Your task to perform on an android device: Go to Google maps Image 0: 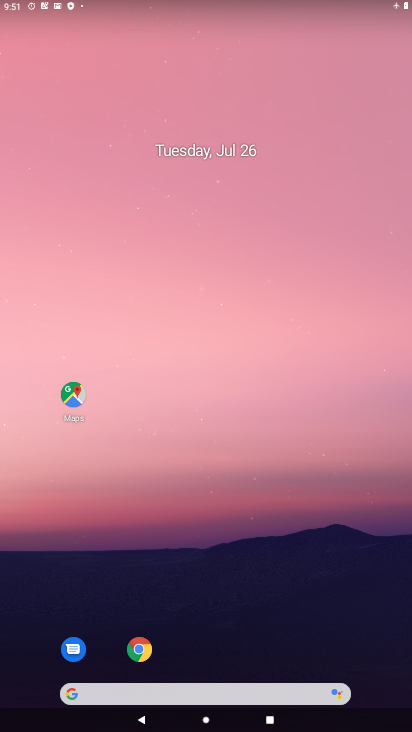
Step 0: drag from (208, 628) to (250, 97)
Your task to perform on an android device: Go to Google maps Image 1: 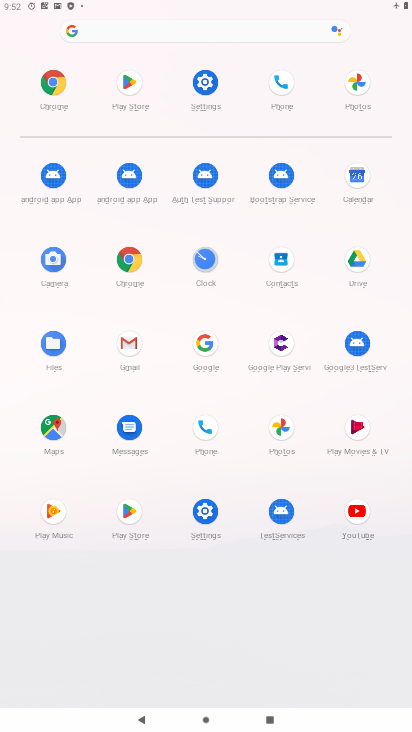
Step 1: click (41, 426)
Your task to perform on an android device: Go to Google maps Image 2: 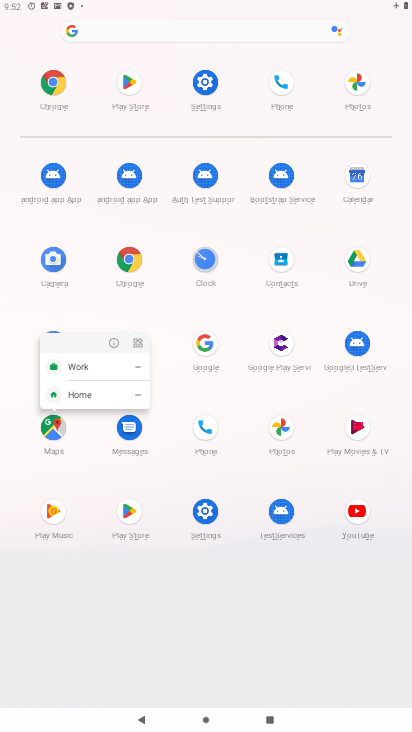
Step 2: click (108, 338)
Your task to perform on an android device: Go to Google maps Image 3: 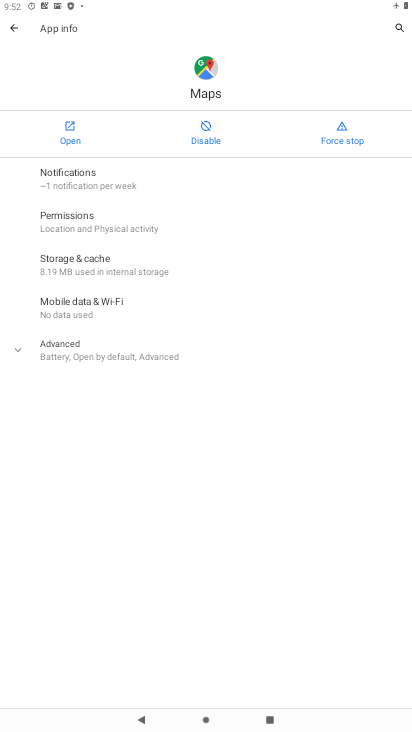
Step 3: click (70, 135)
Your task to perform on an android device: Go to Google maps Image 4: 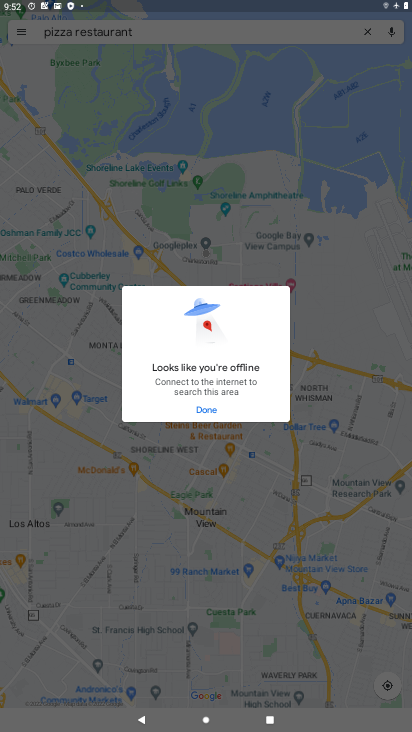
Step 4: drag from (241, 488) to (212, 294)
Your task to perform on an android device: Go to Google maps Image 5: 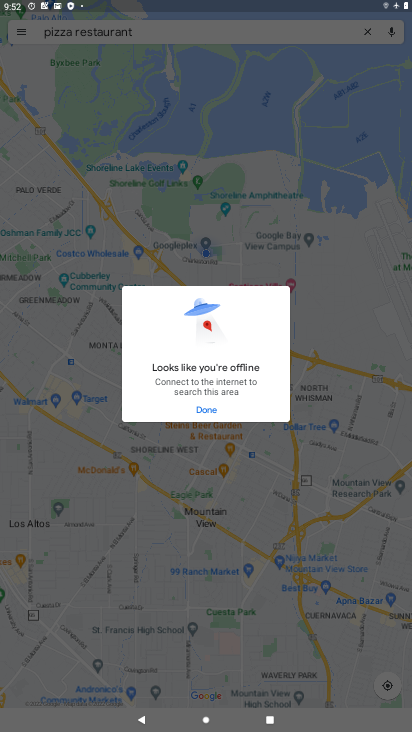
Step 5: click (200, 409)
Your task to perform on an android device: Go to Google maps Image 6: 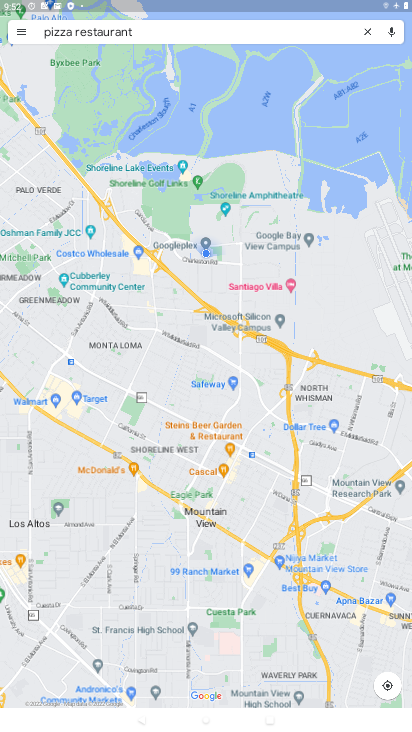
Step 6: task complete